Your task to perform on an android device: Do I have any events today? Image 0: 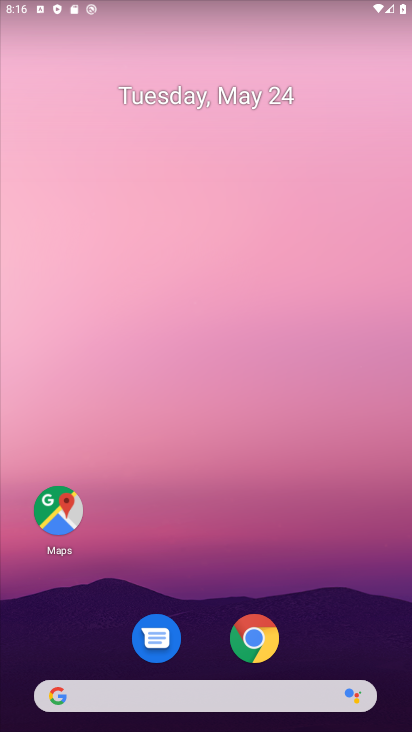
Step 0: drag from (211, 724) to (244, 21)
Your task to perform on an android device: Do I have any events today? Image 1: 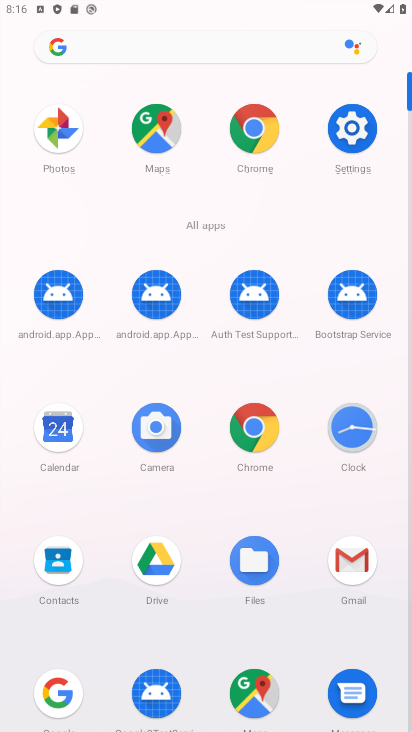
Step 1: click (66, 431)
Your task to perform on an android device: Do I have any events today? Image 2: 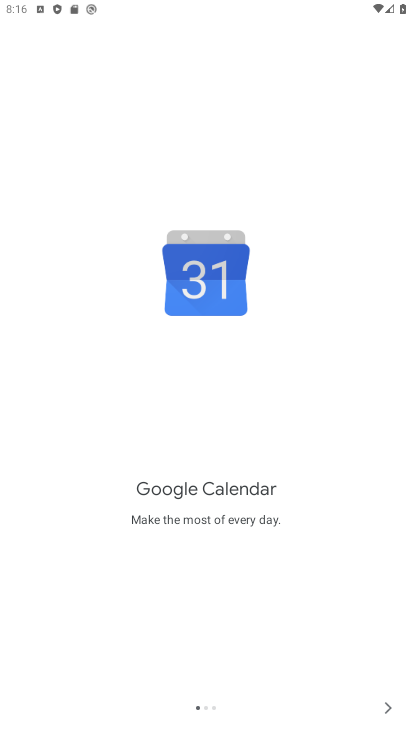
Step 2: click (379, 705)
Your task to perform on an android device: Do I have any events today? Image 3: 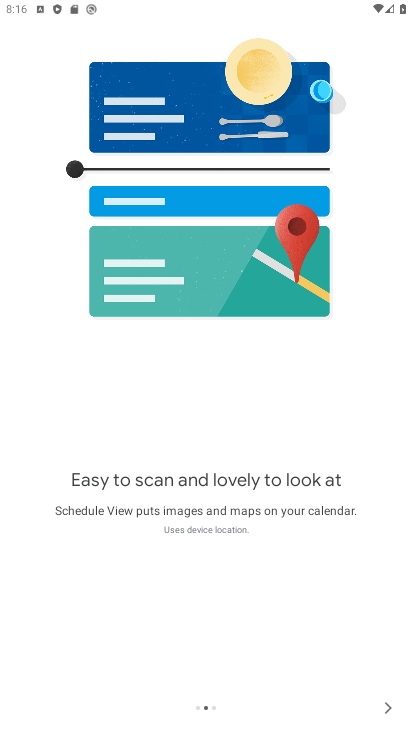
Step 3: click (379, 705)
Your task to perform on an android device: Do I have any events today? Image 4: 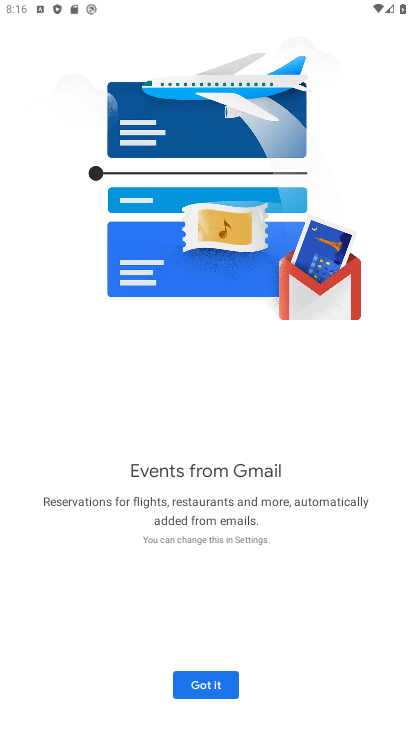
Step 4: click (223, 684)
Your task to perform on an android device: Do I have any events today? Image 5: 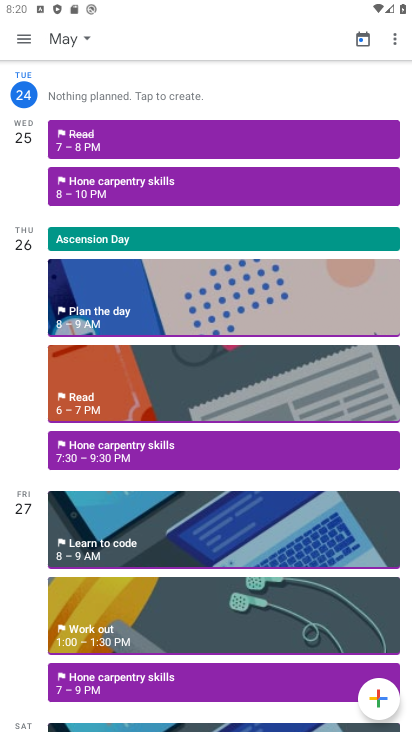
Step 5: task complete